Your task to perform on an android device: Open Chrome and go to the settings page Image 0: 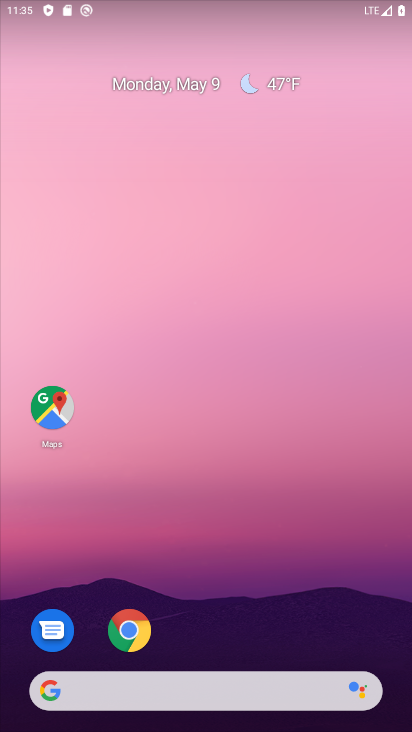
Step 0: press home button
Your task to perform on an android device: Open Chrome and go to the settings page Image 1: 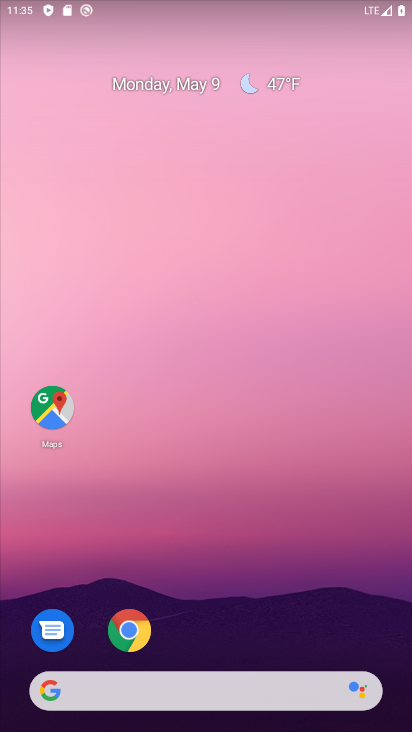
Step 1: drag from (103, 689) to (247, 189)
Your task to perform on an android device: Open Chrome and go to the settings page Image 2: 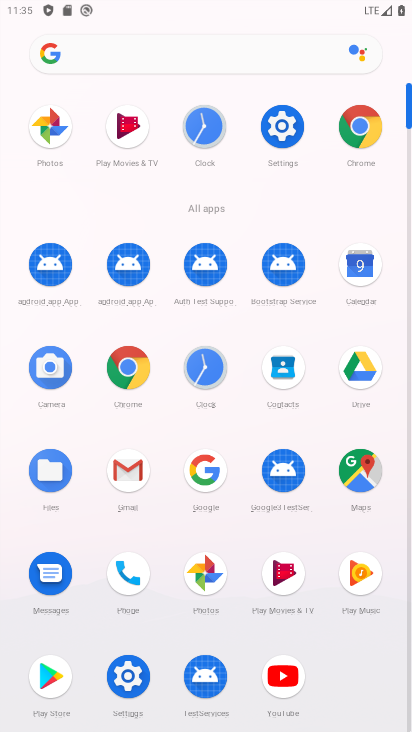
Step 2: click (354, 137)
Your task to perform on an android device: Open Chrome and go to the settings page Image 3: 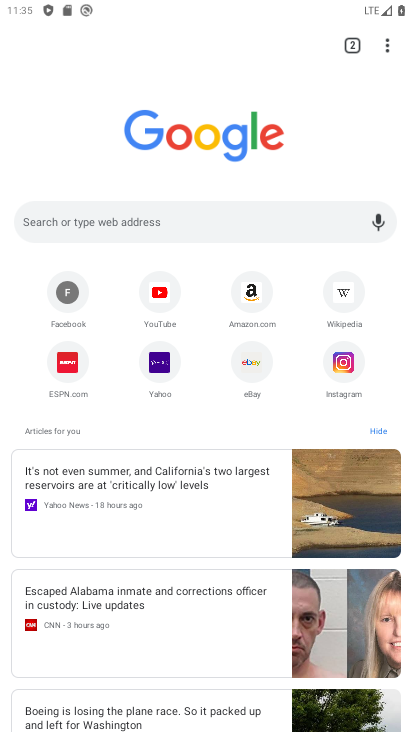
Step 3: task complete